Your task to perform on an android device: Open the calendar app, open the side menu, and click the "Day" option Image 0: 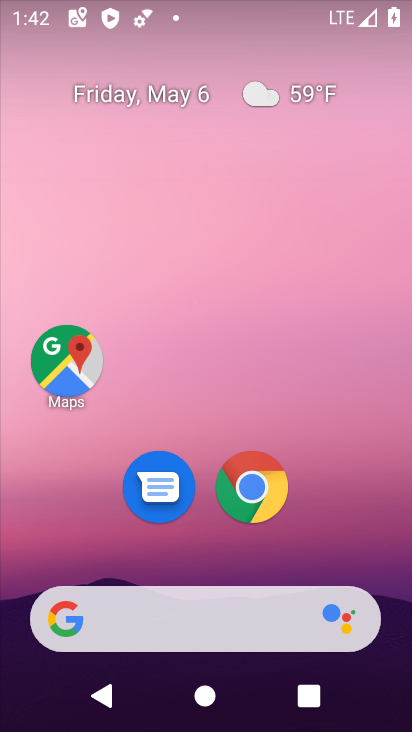
Step 0: drag from (259, 462) to (309, 16)
Your task to perform on an android device: Open the calendar app, open the side menu, and click the "Day" option Image 1: 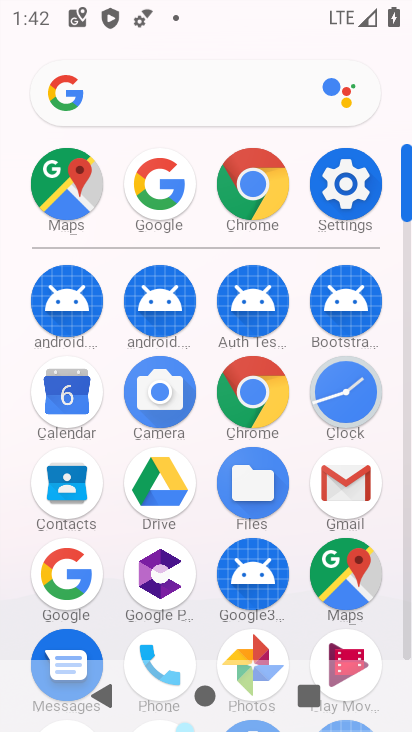
Step 1: click (80, 413)
Your task to perform on an android device: Open the calendar app, open the side menu, and click the "Day" option Image 2: 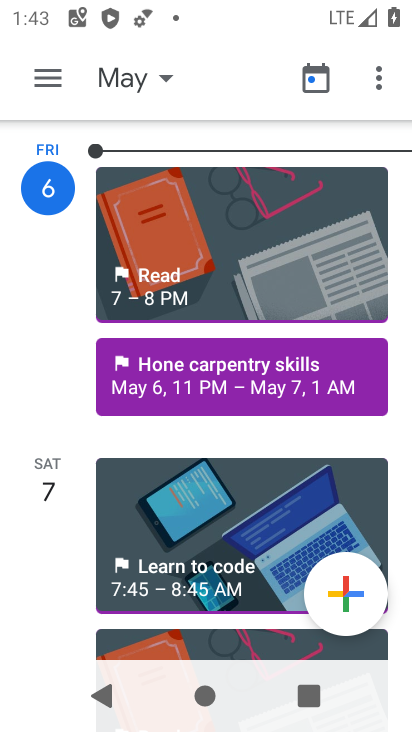
Step 2: click (54, 71)
Your task to perform on an android device: Open the calendar app, open the side menu, and click the "Day" option Image 3: 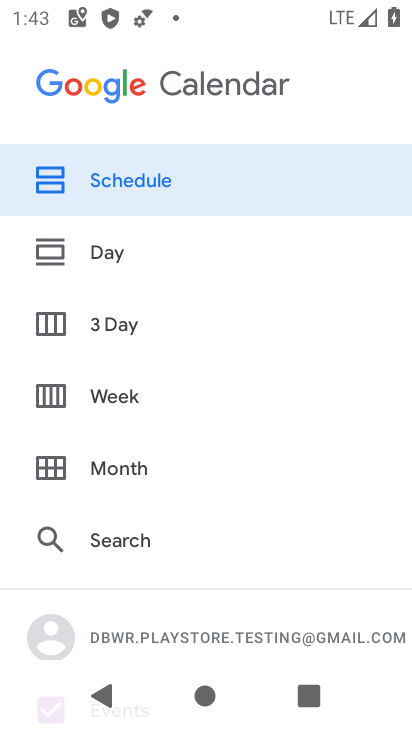
Step 3: click (165, 251)
Your task to perform on an android device: Open the calendar app, open the side menu, and click the "Day" option Image 4: 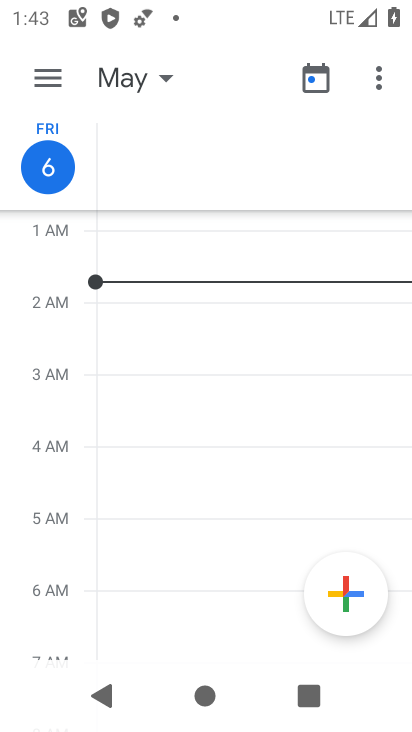
Step 4: task complete